Your task to perform on an android device: Go to sound settings Image 0: 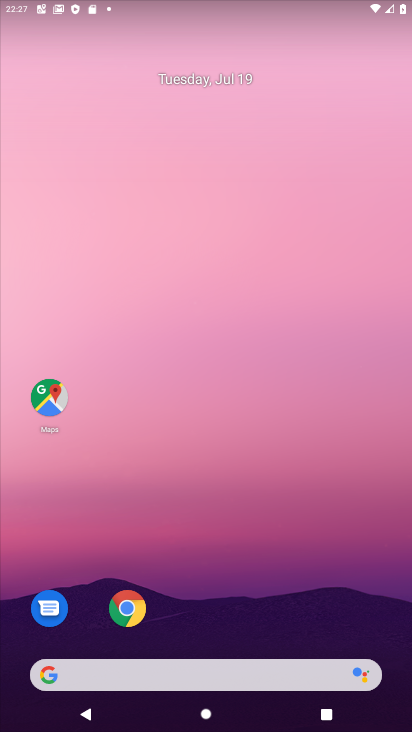
Step 0: drag from (311, 617) to (277, 145)
Your task to perform on an android device: Go to sound settings Image 1: 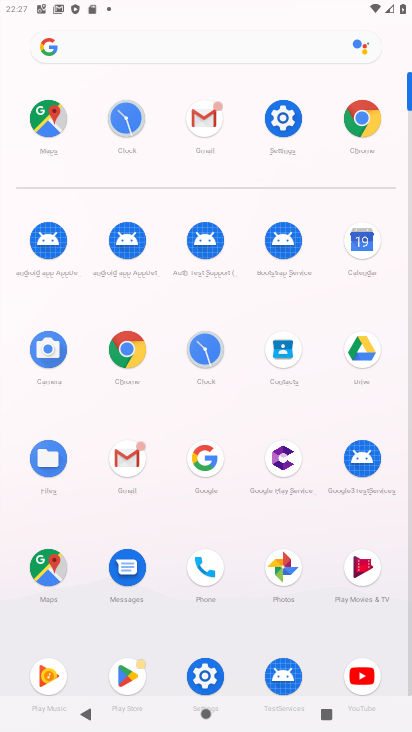
Step 1: click (276, 118)
Your task to perform on an android device: Go to sound settings Image 2: 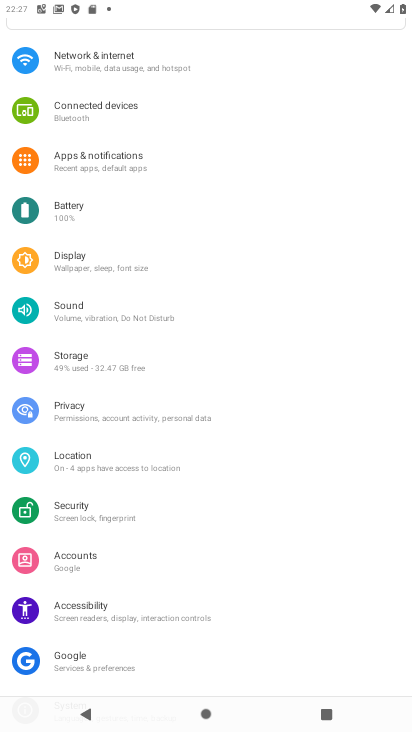
Step 2: drag from (147, 575) to (200, 258)
Your task to perform on an android device: Go to sound settings Image 3: 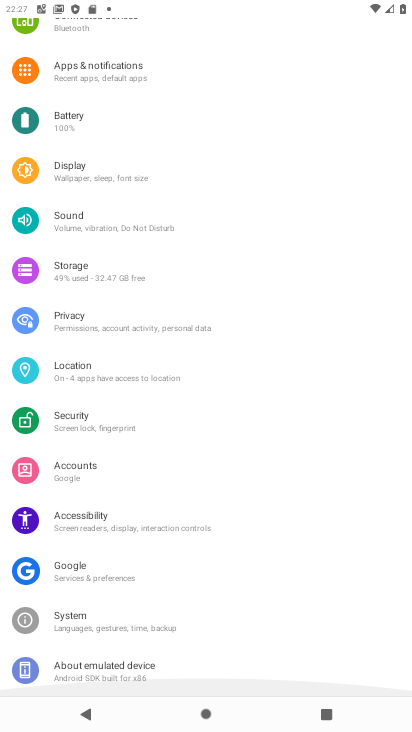
Step 3: drag from (200, 258) to (149, 520)
Your task to perform on an android device: Go to sound settings Image 4: 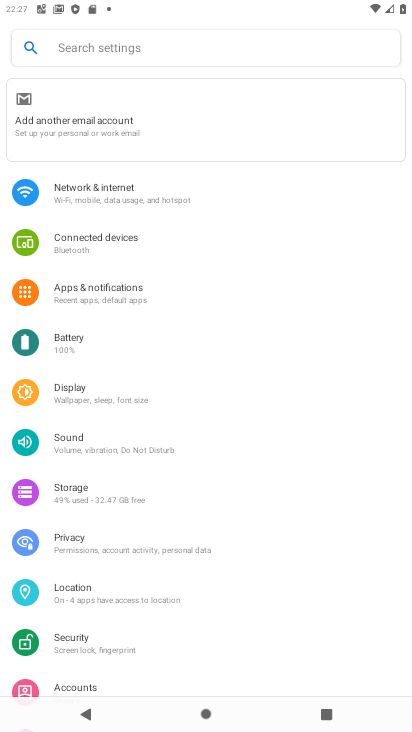
Step 4: click (119, 446)
Your task to perform on an android device: Go to sound settings Image 5: 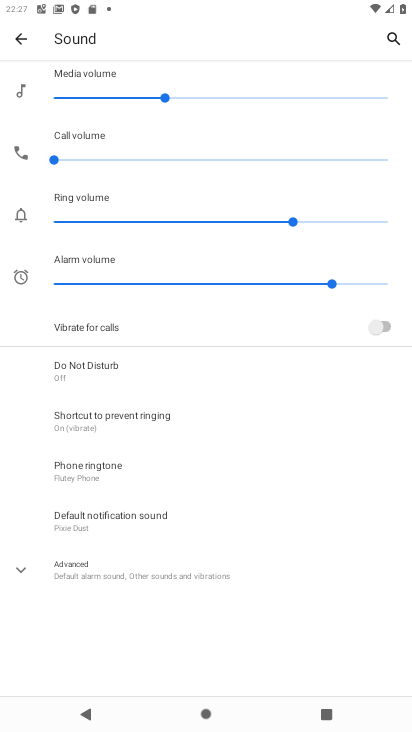
Step 5: task complete